Your task to perform on an android device: Open internet settings Image 0: 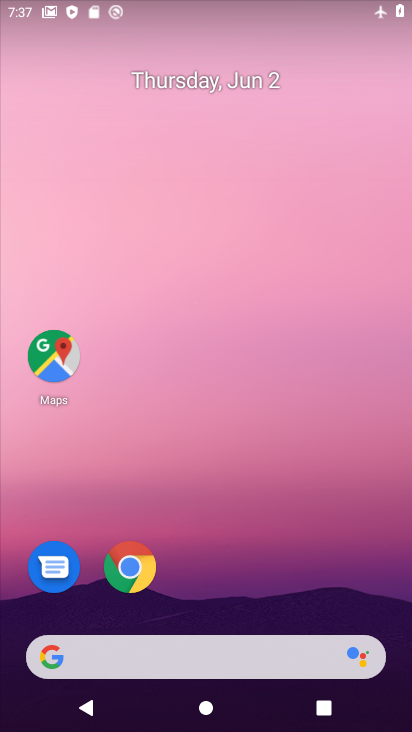
Step 0: drag from (257, 595) to (176, 4)
Your task to perform on an android device: Open internet settings Image 1: 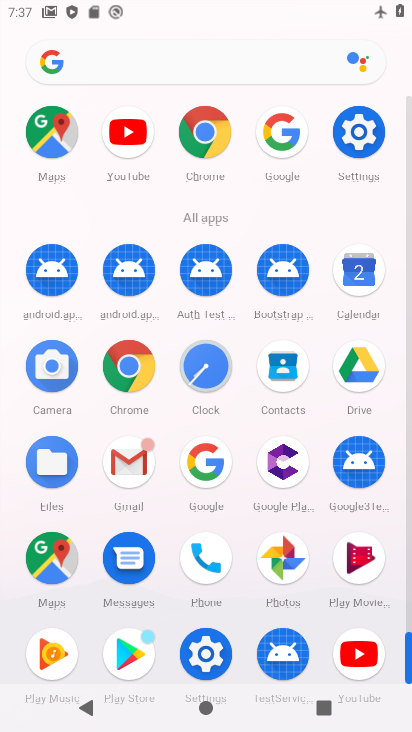
Step 1: click (361, 132)
Your task to perform on an android device: Open internet settings Image 2: 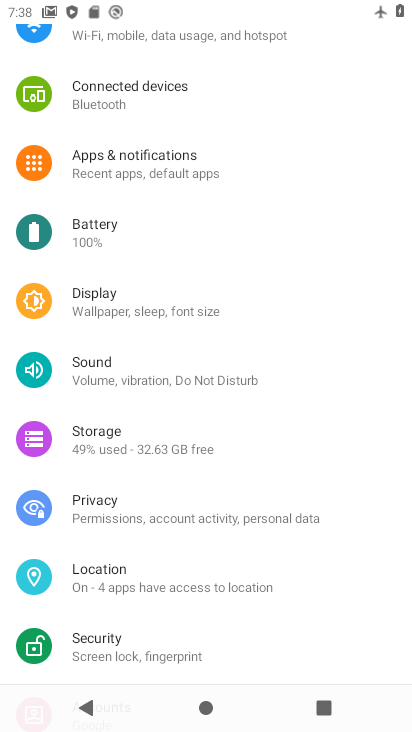
Step 2: drag from (174, 129) to (227, 285)
Your task to perform on an android device: Open internet settings Image 3: 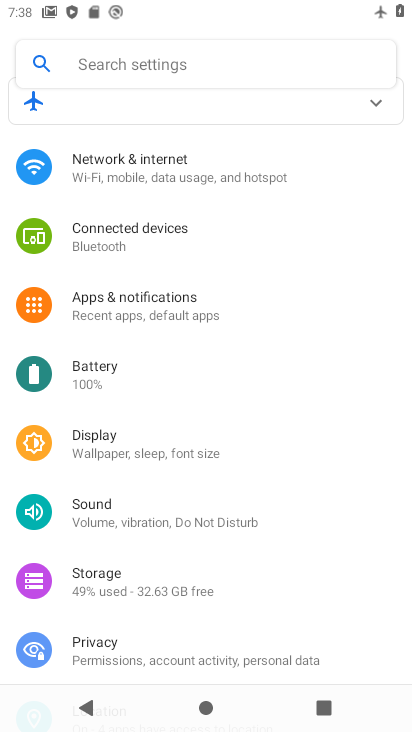
Step 3: click (155, 179)
Your task to perform on an android device: Open internet settings Image 4: 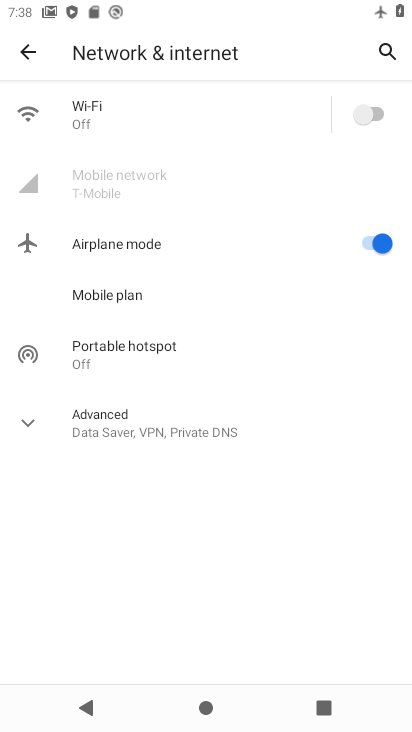
Step 4: task complete